Your task to perform on an android device: open the mobile data screen to see how much data has been used Image 0: 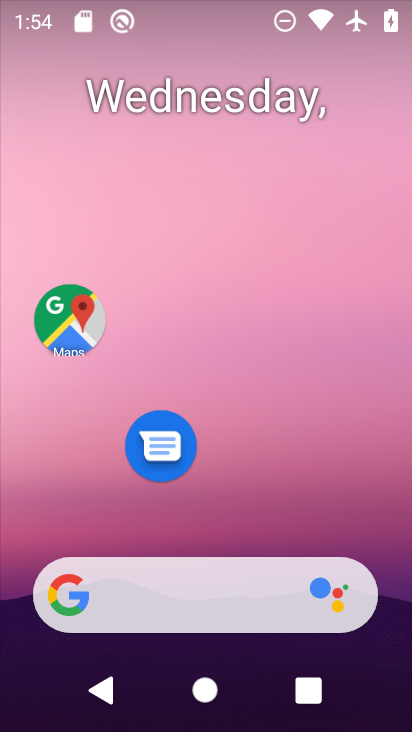
Step 0: drag from (232, 487) to (255, 144)
Your task to perform on an android device: open the mobile data screen to see how much data has been used Image 1: 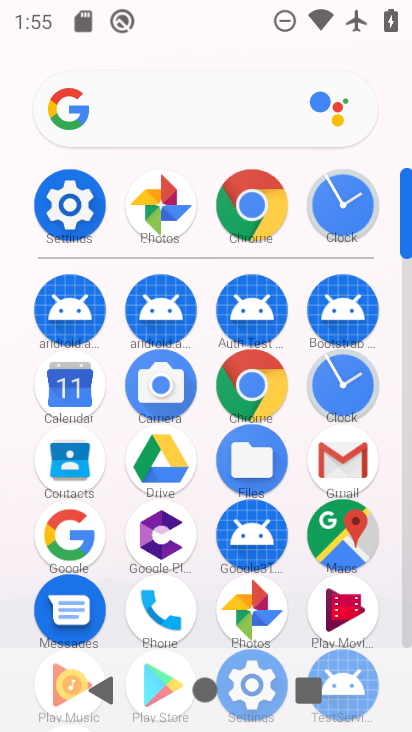
Step 1: click (42, 203)
Your task to perform on an android device: open the mobile data screen to see how much data has been used Image 2: 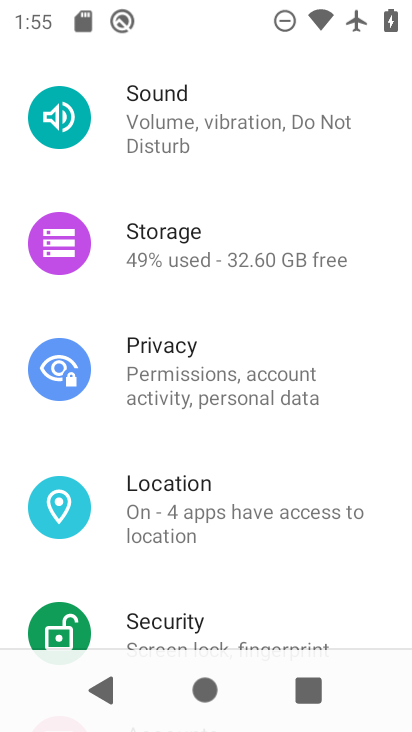
Step 2: drag from (228, 205) to (209, 557)
Your task to perform on an android device: open the mobile data screen to see how much data has been used Image 3: 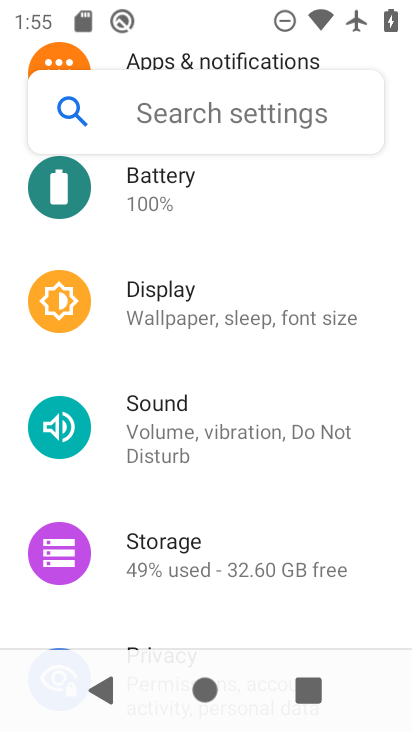
Step 3: drag from (248, 274) to (229, 607)
Your task to perform on an android device: open the mobile data screen to see how much data has been used Image 4: 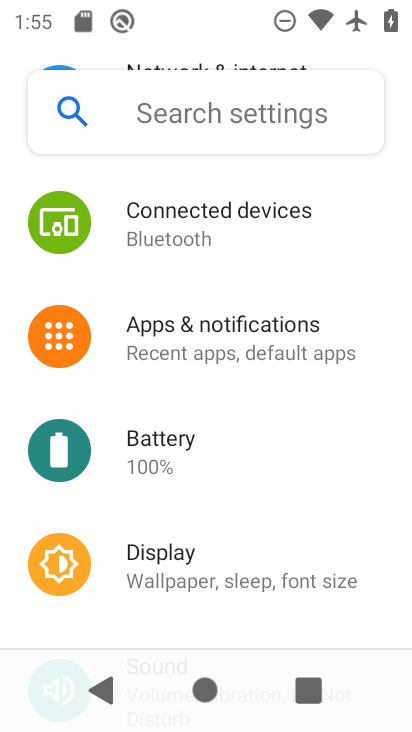
Step 4: drag from (227, 301) to (223, 624)
Your task to perform on an android device: open the mobile data screen to see how much data has been used Image 5: 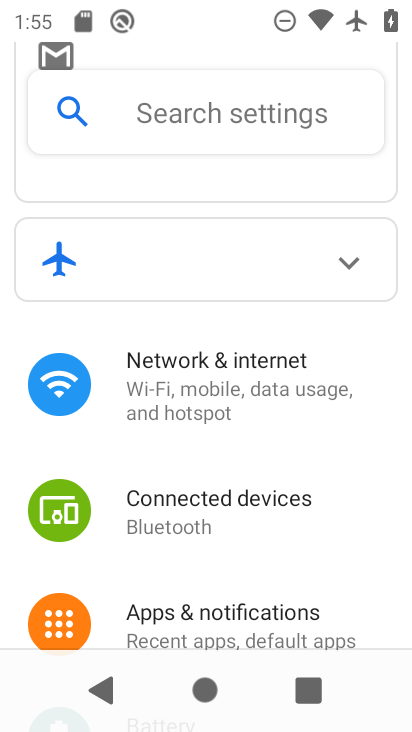
Step 5: click (246, 380)
Your task to perform on an android device: open the mobile data screen to see how much data has been used Image 6: 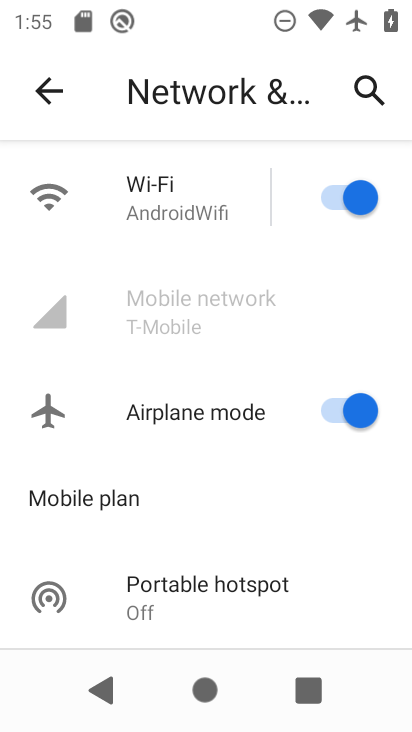
Step 6: click (49, 90)
Your task to perform on an android device: open the mobile data screen to see how much data has been used Image 7: 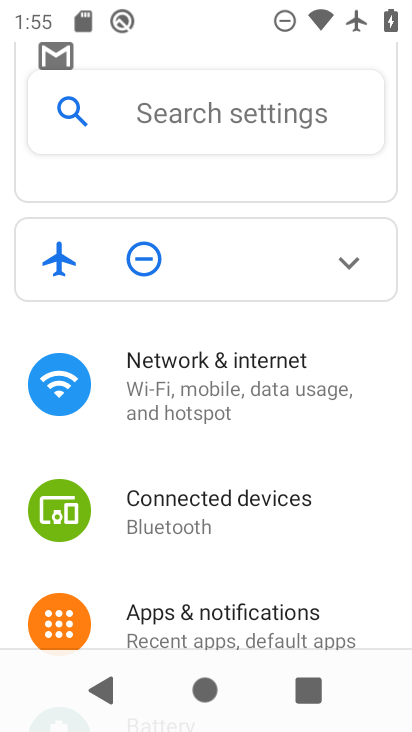
Step 7: click (156, 433)
Your task to perform on an android device: open the mobile data screen to see how much data has been used Image 8: 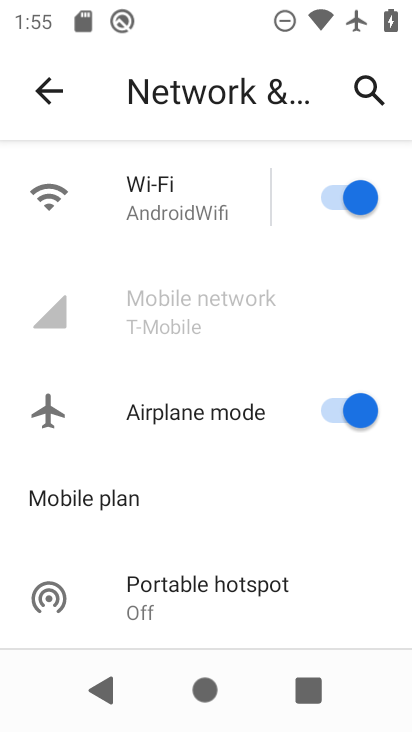
Step 8: click (332, 410)
Your task to perform on an android device: open the mobile data screen to see how much data has been used Image 9: 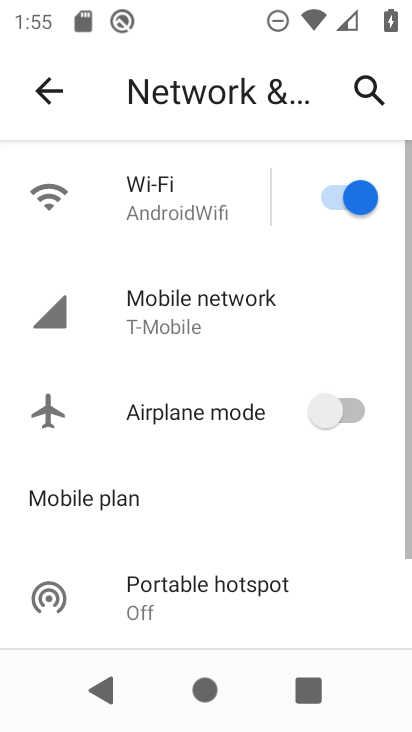
Step 9: click (231, 342)
Your task to perform on an android device: open the mobile data screen to see how much data has been used Image 10: 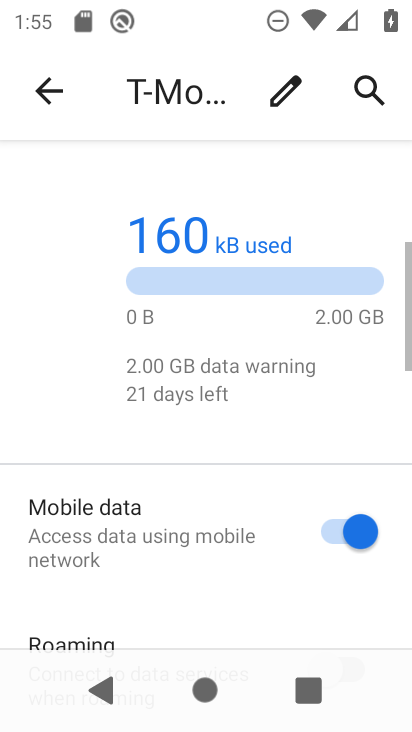
Step 10: task complete